Your task to perform on an android device: Open the web browser Image 0: 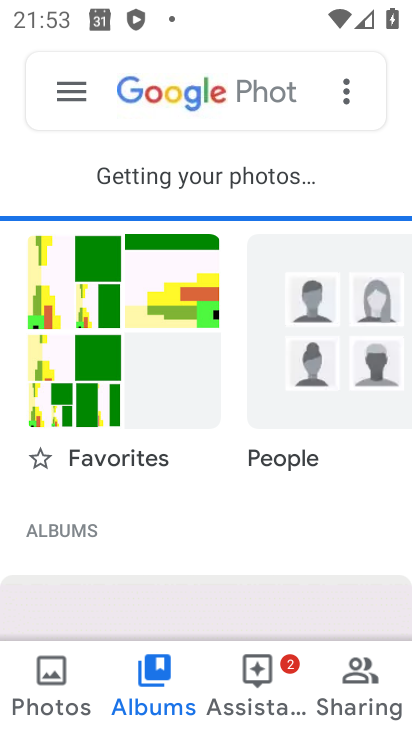
Step 0: press home button
Your task to perform on an android device: Open the web browser Image 1: 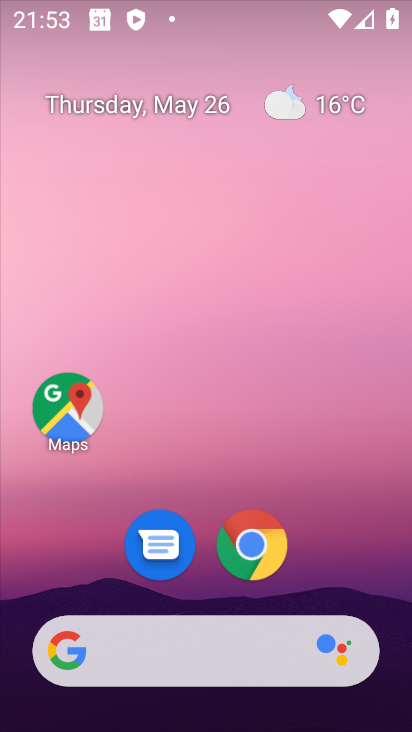
Step 1: drag from (323, 561) to (344, 46)
Your task to perform on an android device: Open the web browser Image 2: 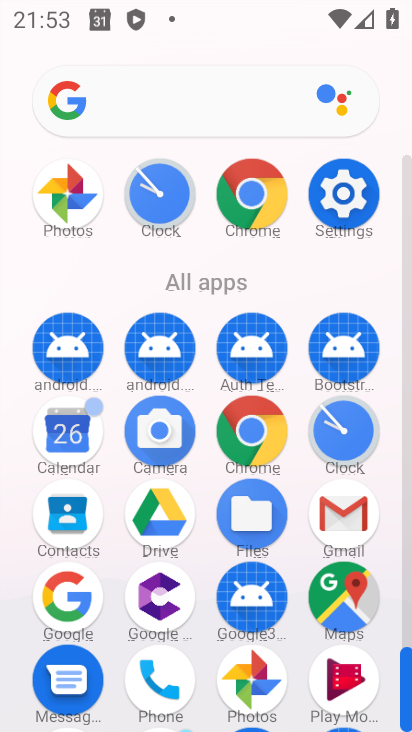
Step 2: click (78, 600)
Your task to perform on an android device: Open the web browser Image 3: 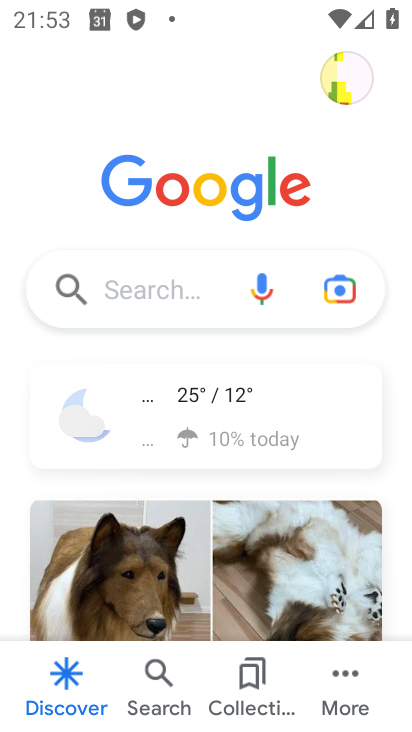
Step 3: task complete